Your task to perform on an android device: turn off location history Image 0: 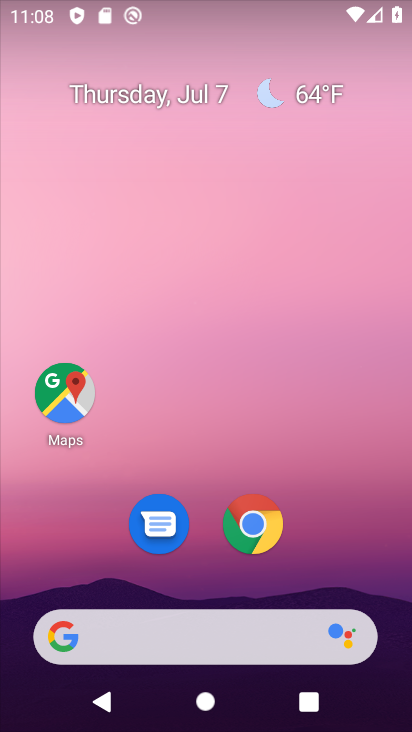
Step 0: click (258, 27)
Your task to perform on an android device: turn off location history Image 1: 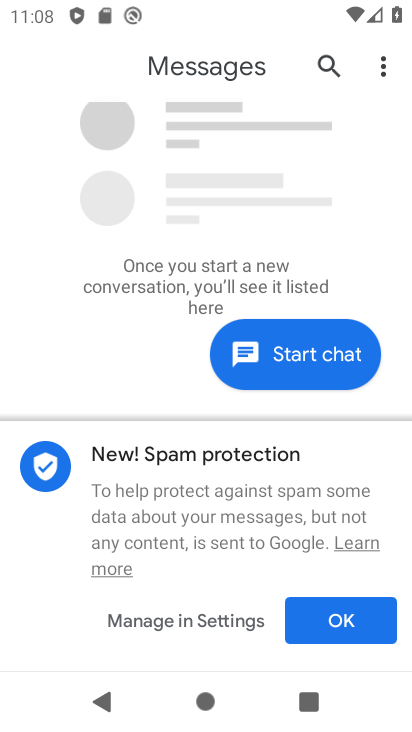
Step 1: press home button
Your task to perform on an android device: turn off location history Image 2: 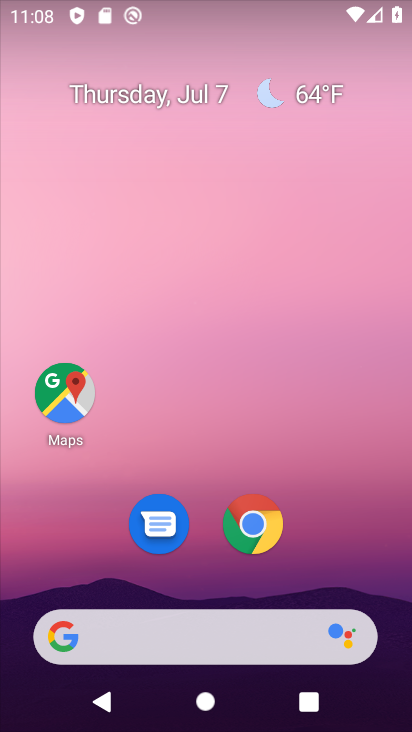
Step 2: drag from (178, 444) to (234, 0)
Your task to perform on an android device: turn off location history Image 3: 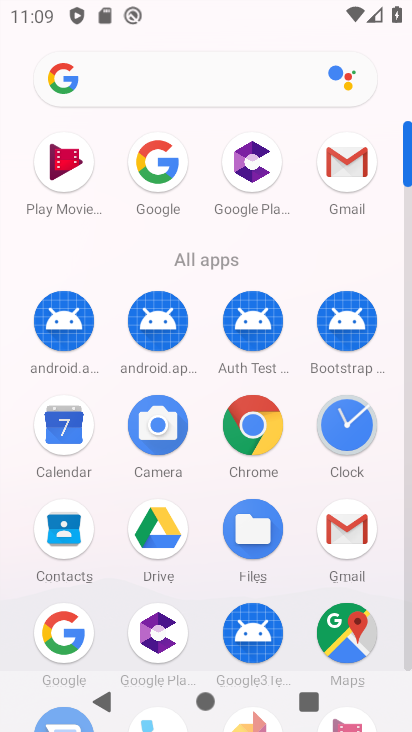
Step 3: drag from (288, 559) to (315, 225)
Your task to perform on an android device: turn off location history Image 4: 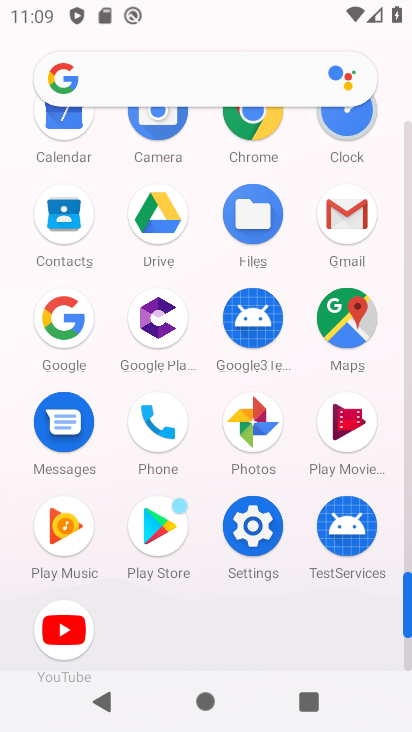
Step 4: click (257, 543)
Your task to perform on an android device: turn off location history Image 5: 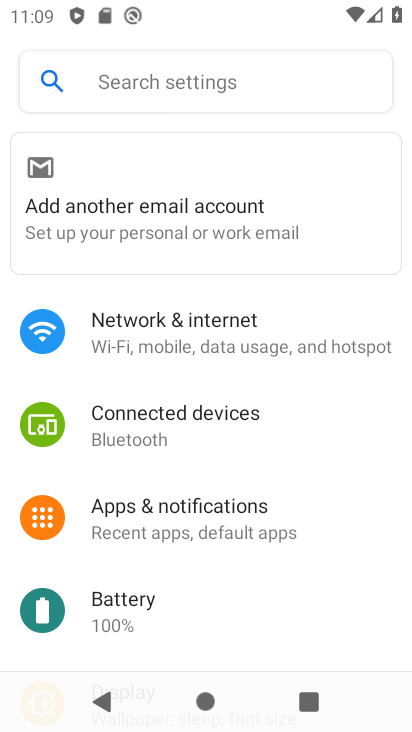
Step 5: drag from (215, 582) to (234, 40)
Your task to perform on an android device: turn off location history Image 6: 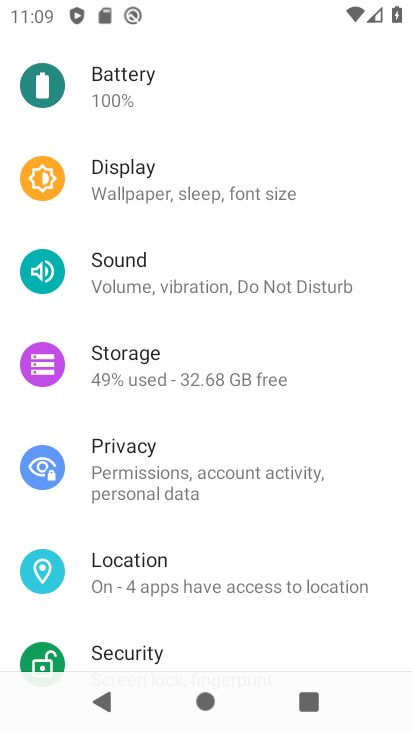
Step 6: click (184, 579)
Your task to perform on an android device: turn off location history Image 7: 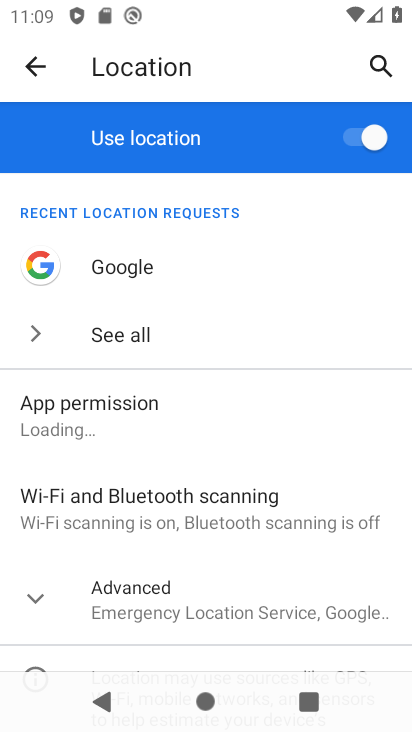
Step 7: click (35, 594)
Your task to perform on an android device: turn off location history Image 8: 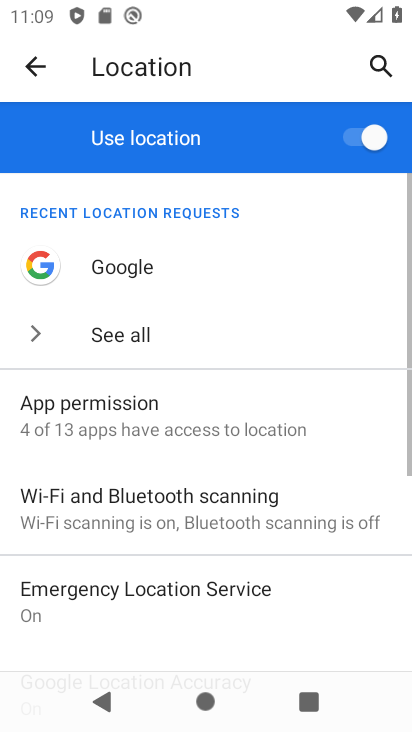
Step 8: drag from (220, 628) to (266, 218)
Your task to perform on an android device: turn off location history Image 9: 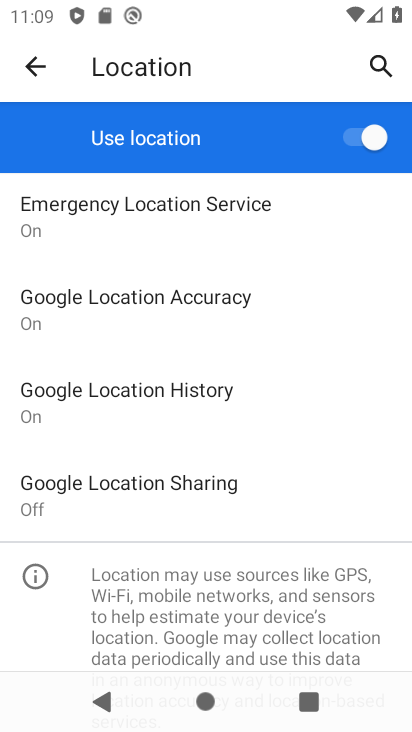
Step 9: click (162, 403)
Your task to perform on an android device: turn off location history Image 10: 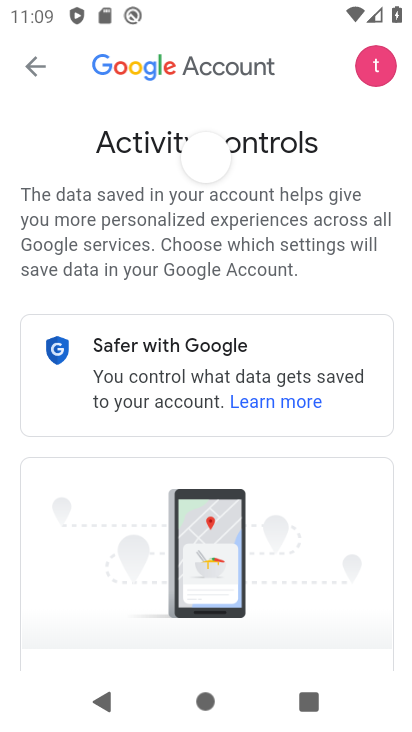
Step 10: drag from (345, 527) to (356, 104)
Your task to perform on an android device: turn off location history Image 11: 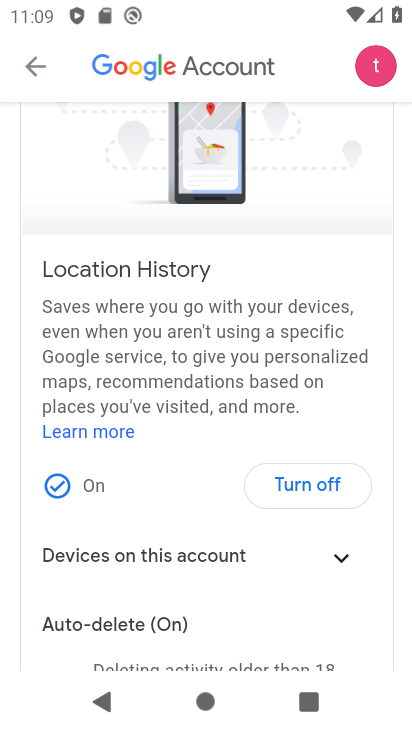
Step 11: click (335, 477)
Your task to perform on an android device: turn off location history Image 12: 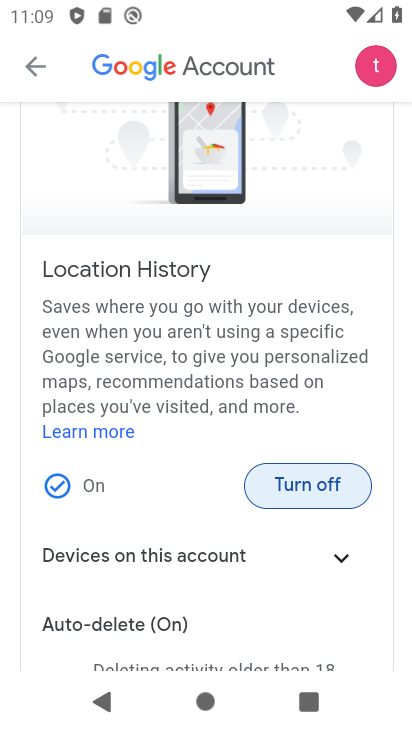
Step 12: click (335, 477)
Your task to perform on an android device: turn off location history Image 13: 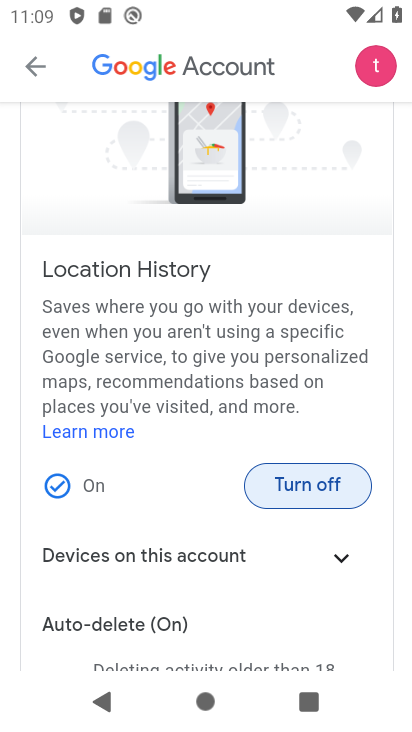
Step 13: drag from (255, 420) to (265, 253)
Your task to perform on an android device: turn off location history Image 14: 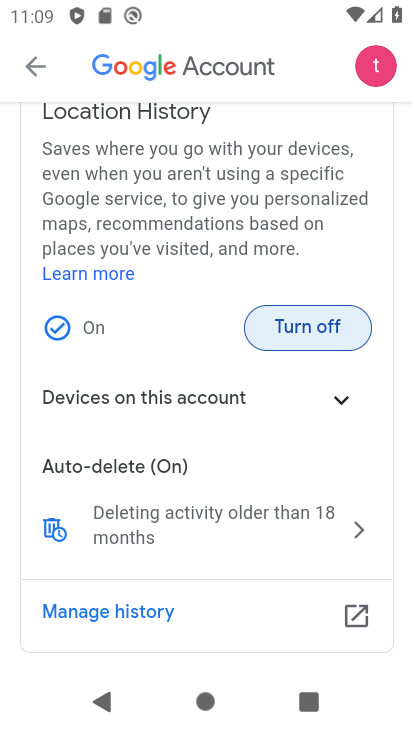
Step 14: drag from (239, 553) to (275, 324)
Your task to perform on an android device: turn off location history Image 15: 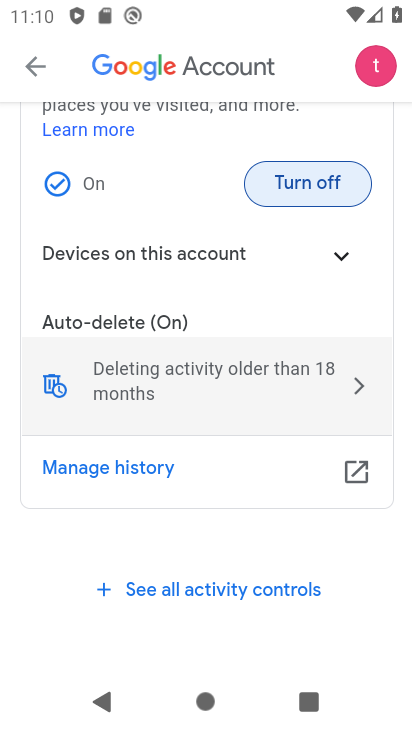
Step 15: drag from (278, 280) to (246, 607)
Your task to perform on an android device: turn off location history Image 16: 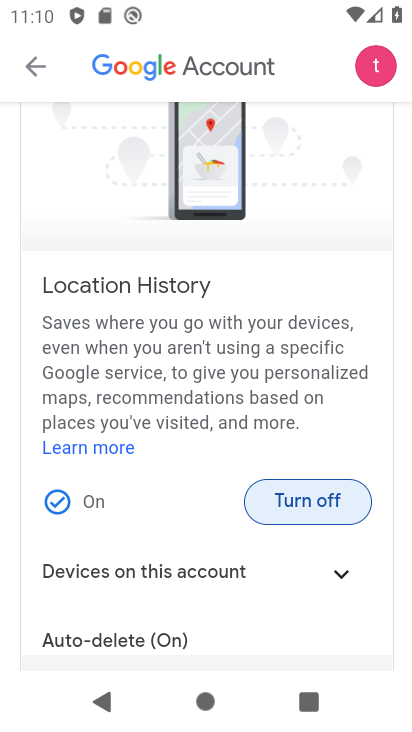
Step 16: click (306, 500)
Your task to perform on an android device: turn off location history Image 17: 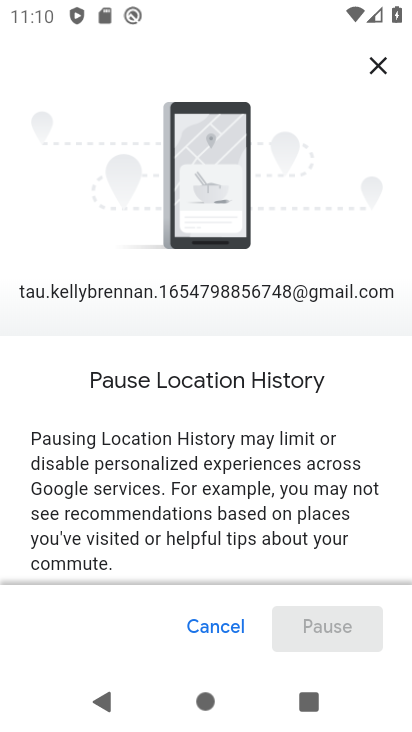
Step 17: drag from (271, 535) to (274, 53)
Your task to perform on an android device: turn off location history Image 18: 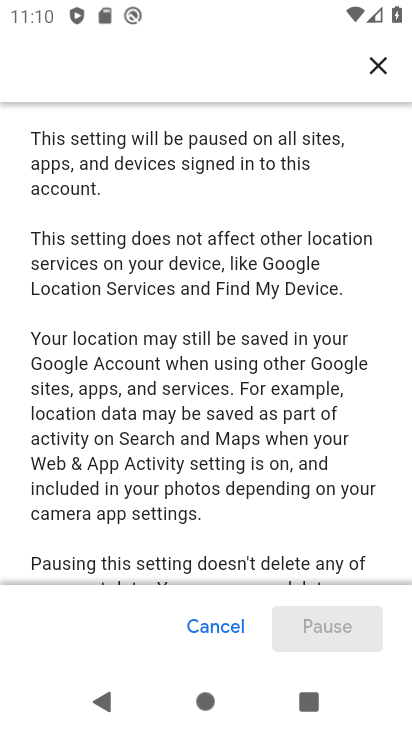
Step 18: drag from (241, 486) to (257, 133)
Your task to perform on an android device: turn off location history Image 19: 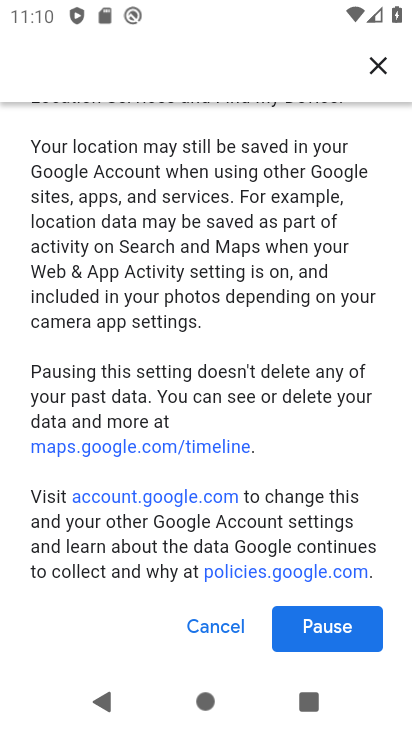
Step 19: click (337, 618)
Your task to perform on an android device: turn off location history Image 20: 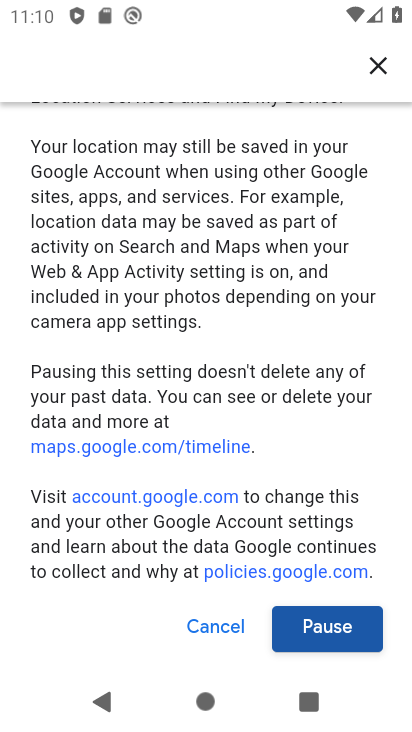
Step 20: click (339, 633)
Your task to perform on an android device: turn off location history Image 21: 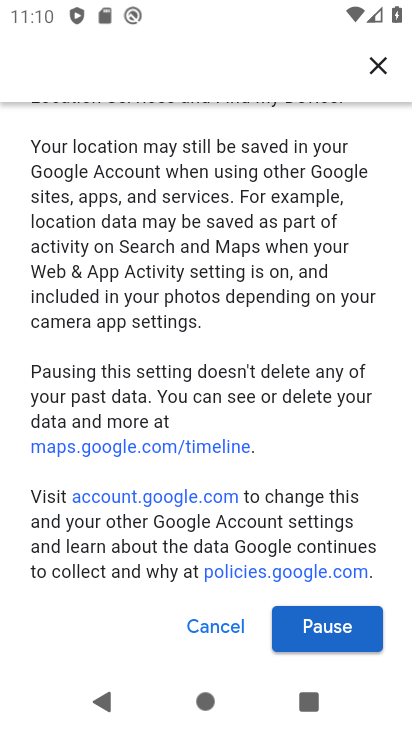
Step 21: click (339, 625)
Your task to perform on an android device: turn off location history Image 22: 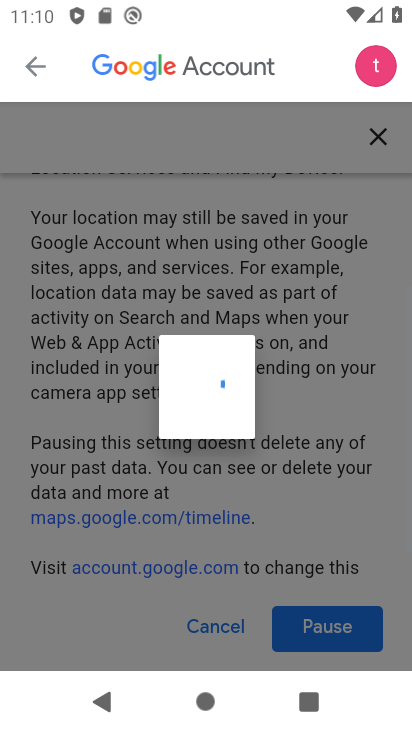
Step 22: click (339, 625)
Your task to perform on an android device: turn off location history Image 23: 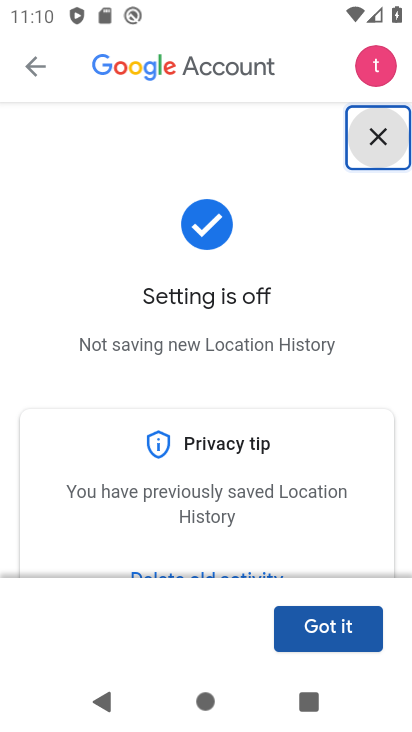
Step 23: click (339, 623)
Your task to perform on an android device: turn off location history Image 24: 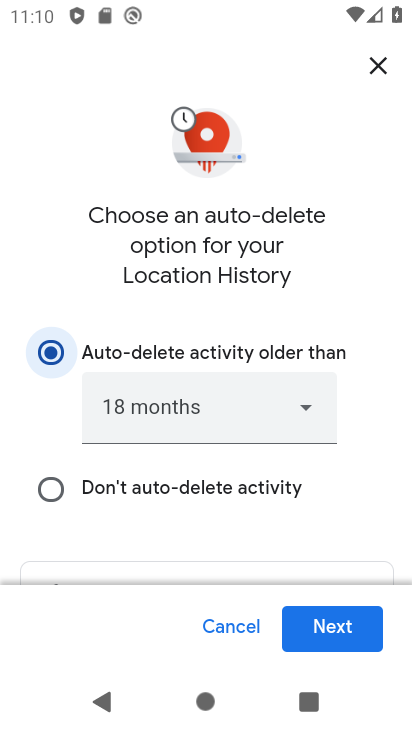
Step 24: click (339, 622)
Your task to perform on an android device: turn off location history Image 25: 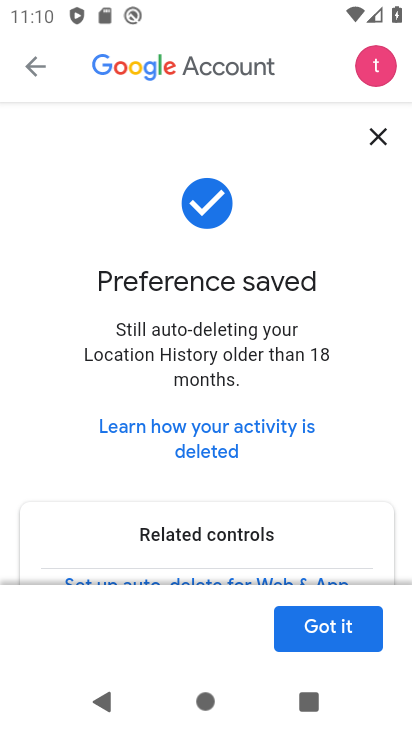
Step 25: click (339, 634)
Your task to perform on an android device: turn off location history Image 26: 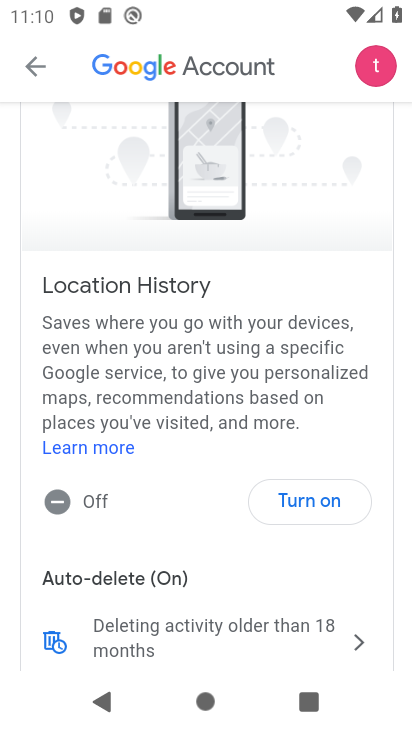
Step 26: task complete